Your task to perform on an android device: Is it going to rain today? Image 0: 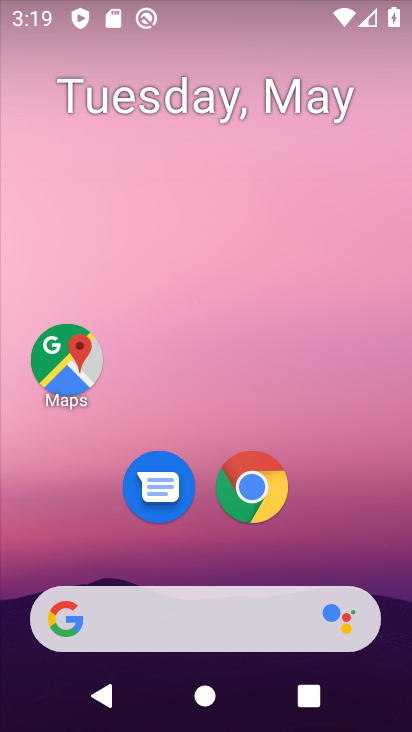
Step 0: drag from (102, 222) to (405, 205)
Your task to perform on an android device: Is it going to rain today? Image 1: 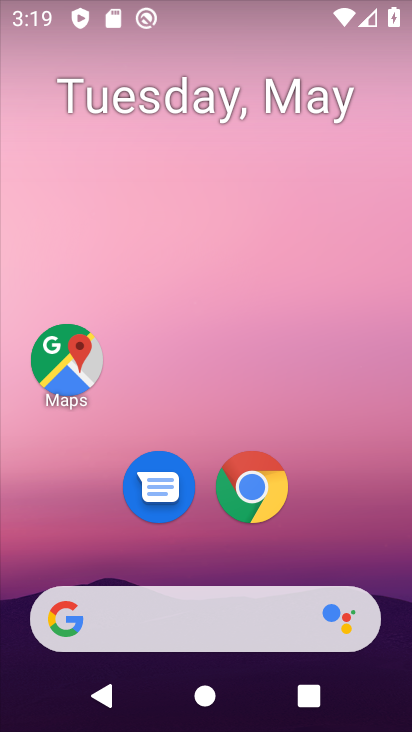
Step 1: drag from (6, 251) to (394, 243)
Your task to perform on an android device: Is it going to rain today? Image 2: 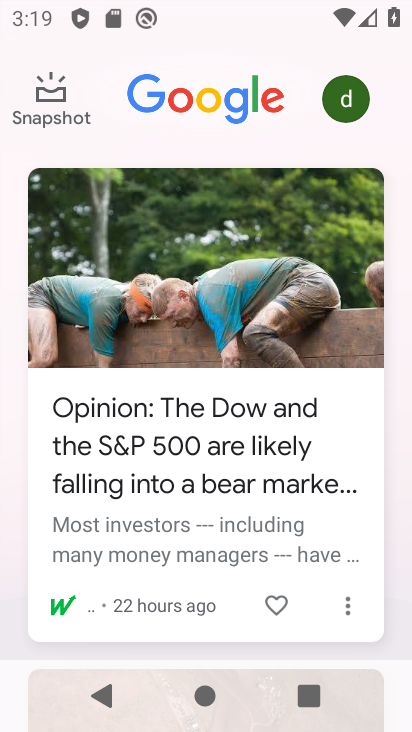
Step 2: press home button
Your task to perform on an android device: Is it going to rain today? Image 3: 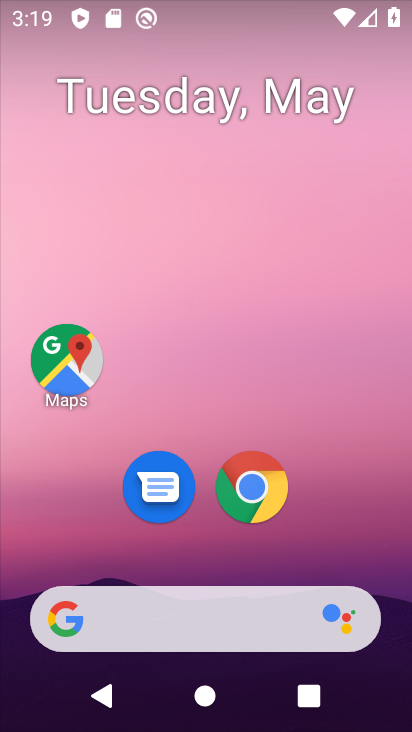
Step 3: drag from (200, 533) to (321, 21)
Your task to perform on an android device: Is it going to rain today? Image 4: 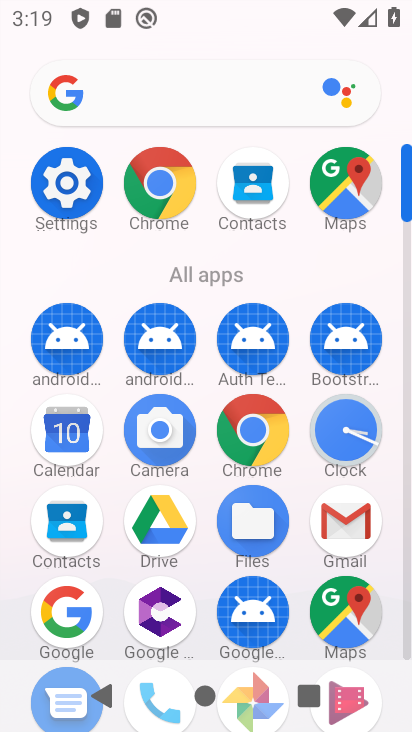
Step 4: click (63, 601)
Your task to perform on an android device: Is it going to rain today? Image 5: 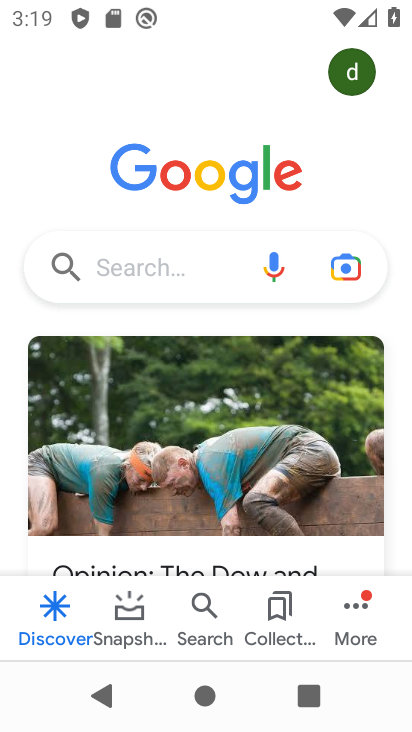
Step 5: click (107, 252)
Your task to perform on an android device: Is it going to rain today? Image 6: 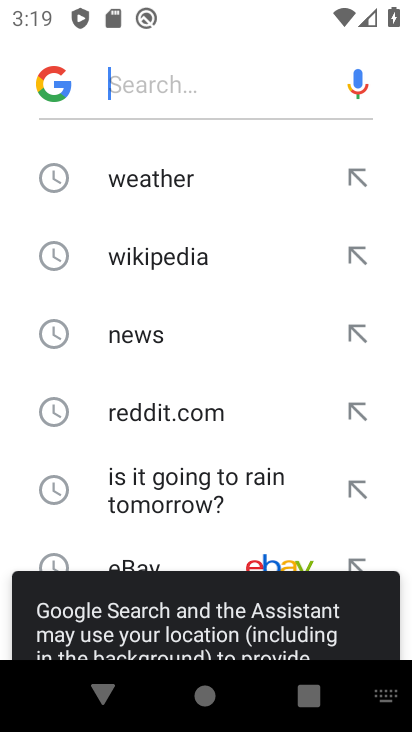
Step 6: click (200, 170)
Your task to perform on an android device: Is it going to rain today? Image 7: 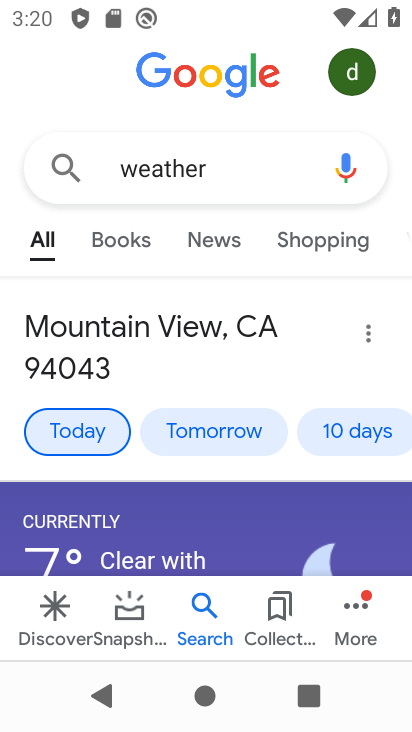
Step 7: drag from (152, 474) to (175, 291)
Your task to perform on an android device: Is it going to rain today? Image 8: 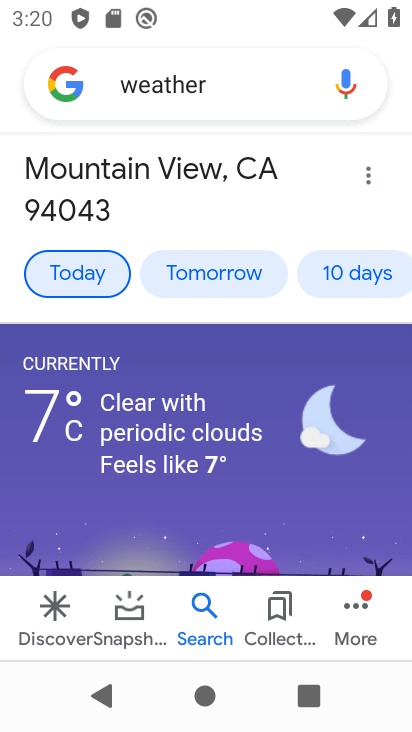
Step 8: click (175, 274)
Your task to perform on an android device: Is it going to rain today? Image 9: 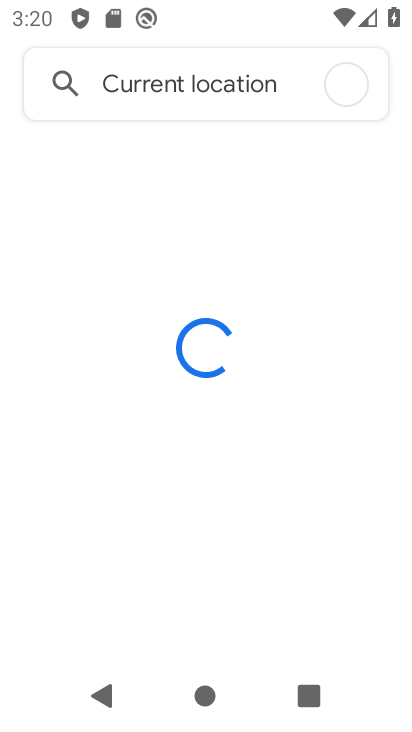
Step 9: task complete